Your task to perform on an android device: change alarm snooze length Image 0: 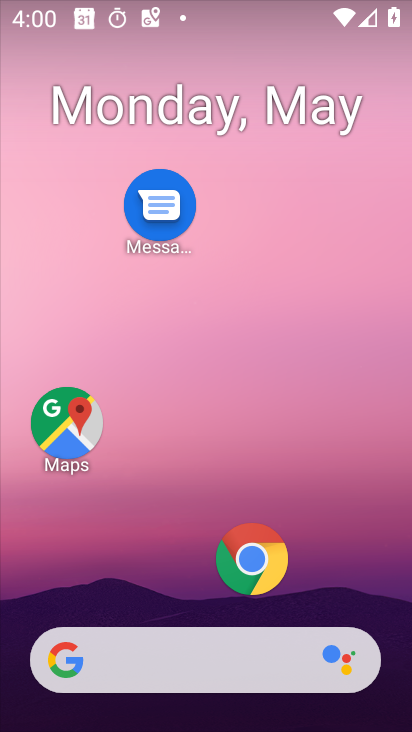
Step 0: drag from (138, 601) to (158, 233)
Your task to perform on an android device: change alarm snooze length Image 1: 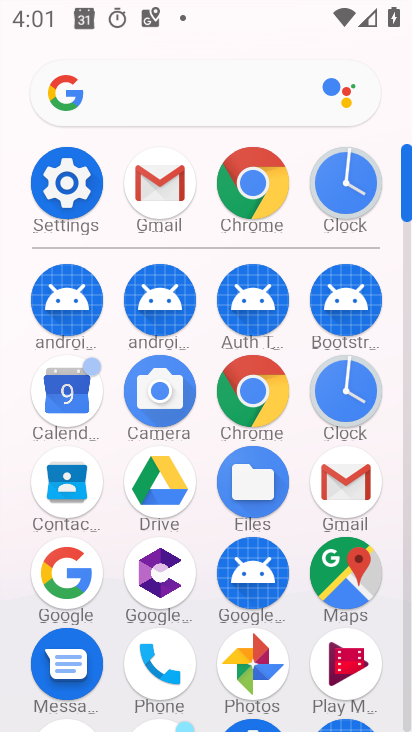
Step 1: click (62, 182)
Your task to perform on an android device: change alarm snooze length Image 2: 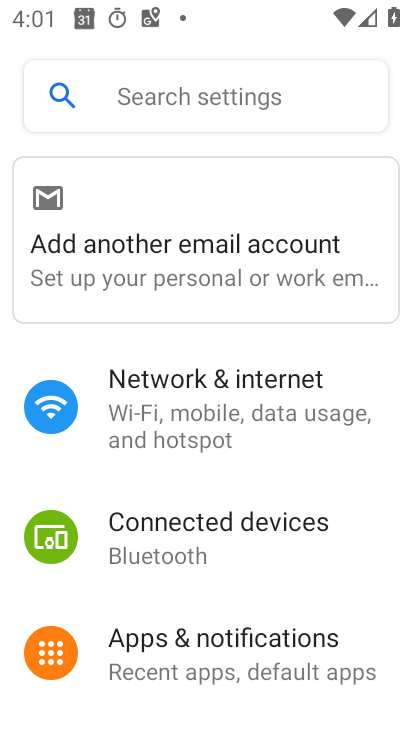
Step 2: press home button
Your task to perform on an android device: change alarm snooze length Image 3: 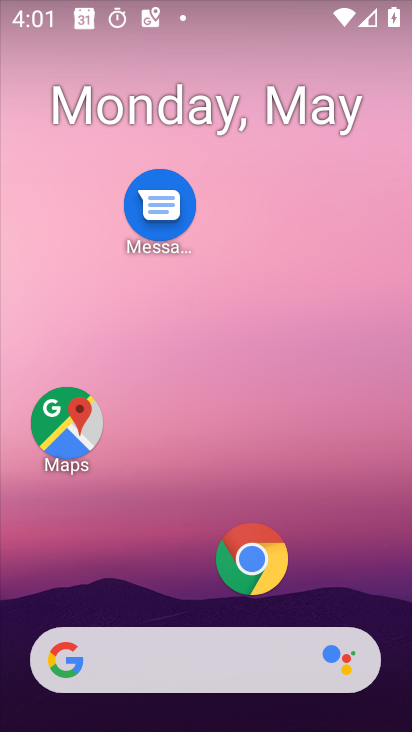
Step 3: drag from (166, 600) to (235, 145)
Your task to perform on an android device: change alarm snooze length Image 4: 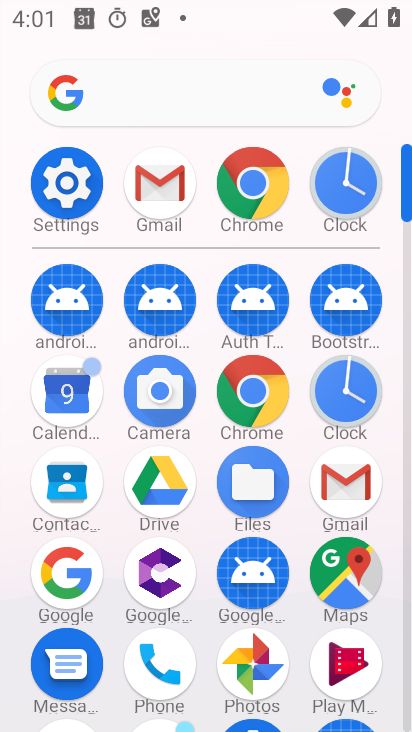
Step 4: click (340, 193)
Your task to perform on an android device: change alarm snooze length Image 5: 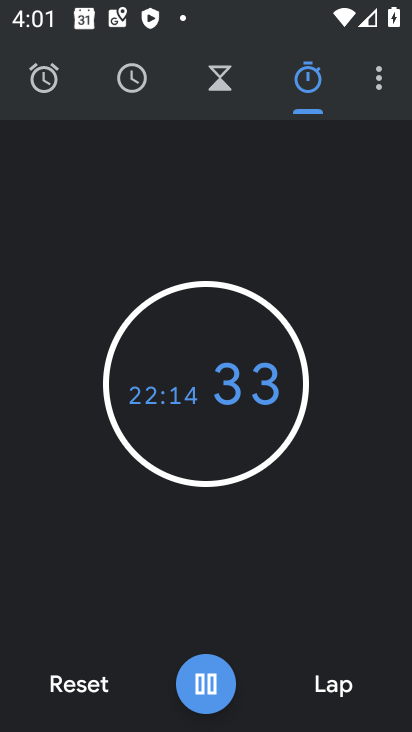
Step 5: click (380, 84)
Your task to perform on an android device: change alarm snooze length Image 6: 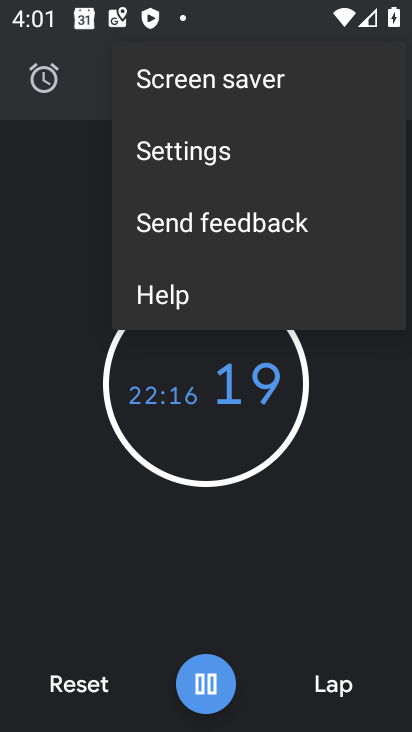
Step 6: click (207, 168)
Your task to perform on an android device: change alarm snooze length Image 7: 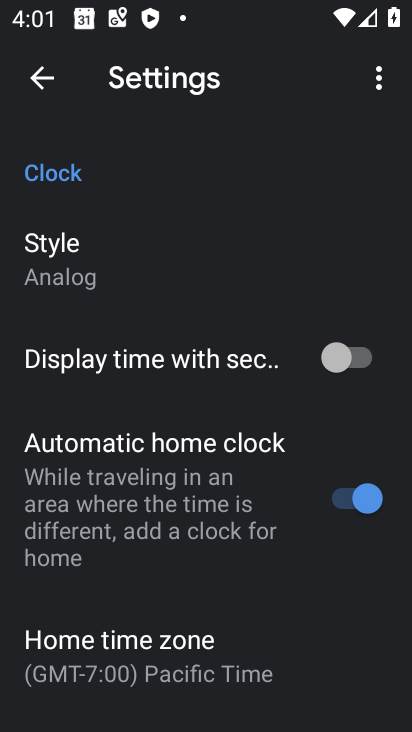
Step 7: drag from (171, 581) to (148, 244)
Your task to perform on an android device: change alarm snooze length Image 8: 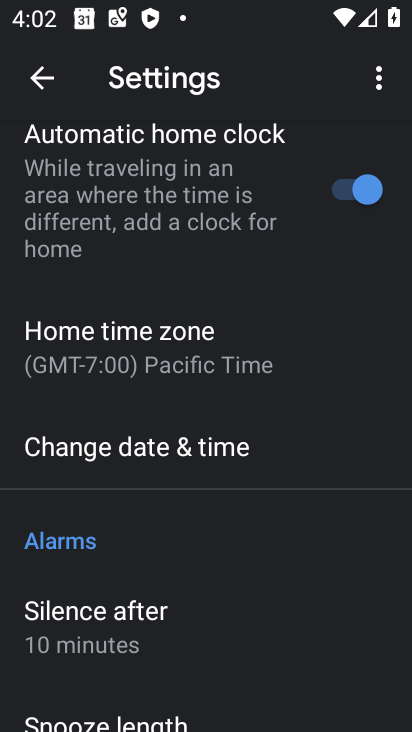
Step 8: click (170, 722)
Your task to perform on an android device: change alarm snooze length Image 9: 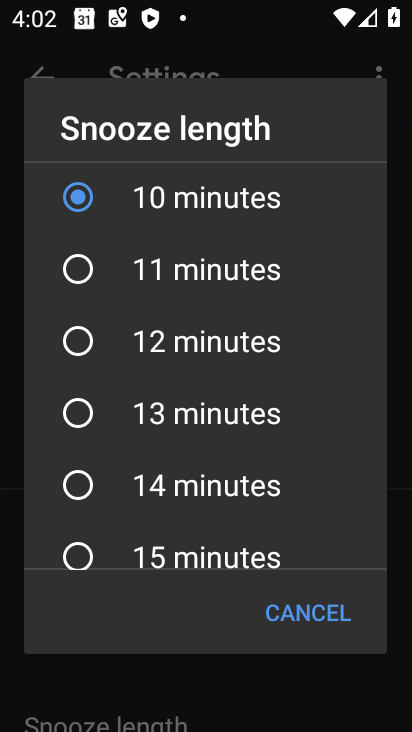
Step 9: click (148, 278)
Your task to perform on an android device: change alarm snooze length Image 10: 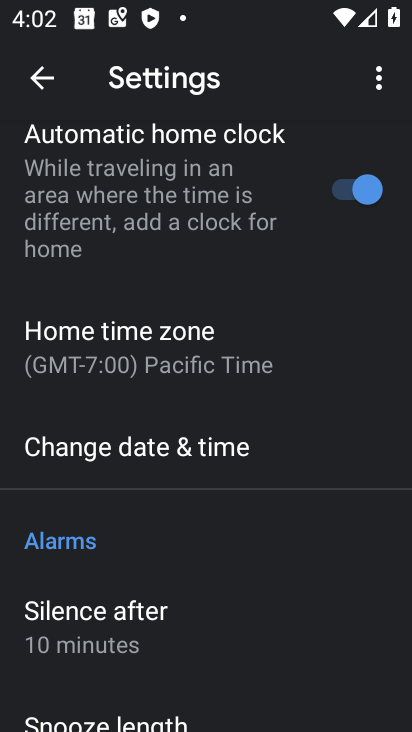
Step 10: task complete